Your task to perform on an android device: turn notification dots off Image 0: 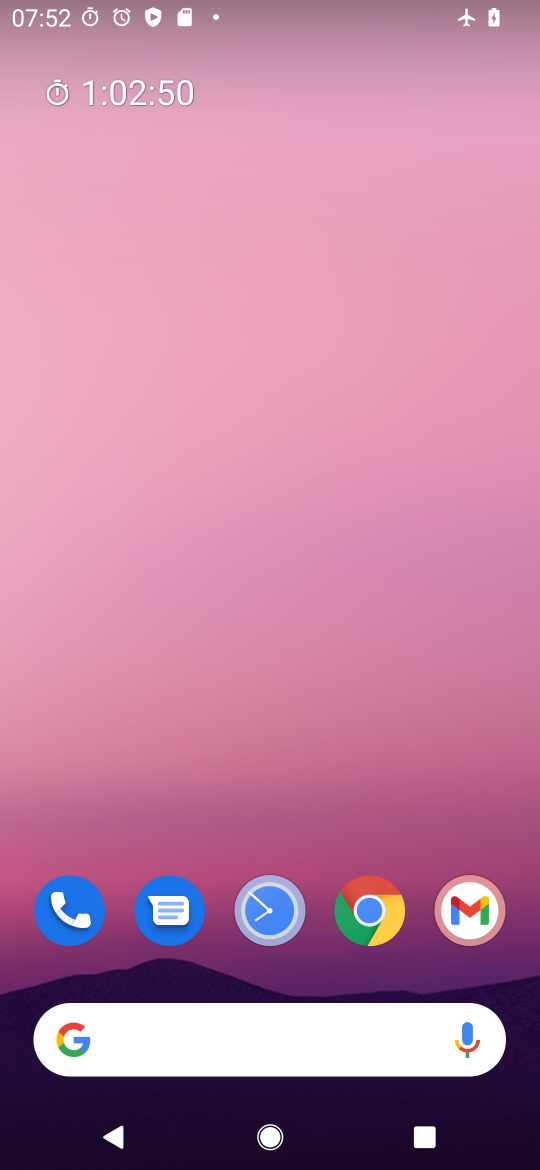
Step 0: drag from (290, 1028) to (313, 125)
Your task to perform on an android device: turn notification dots off Image 1: 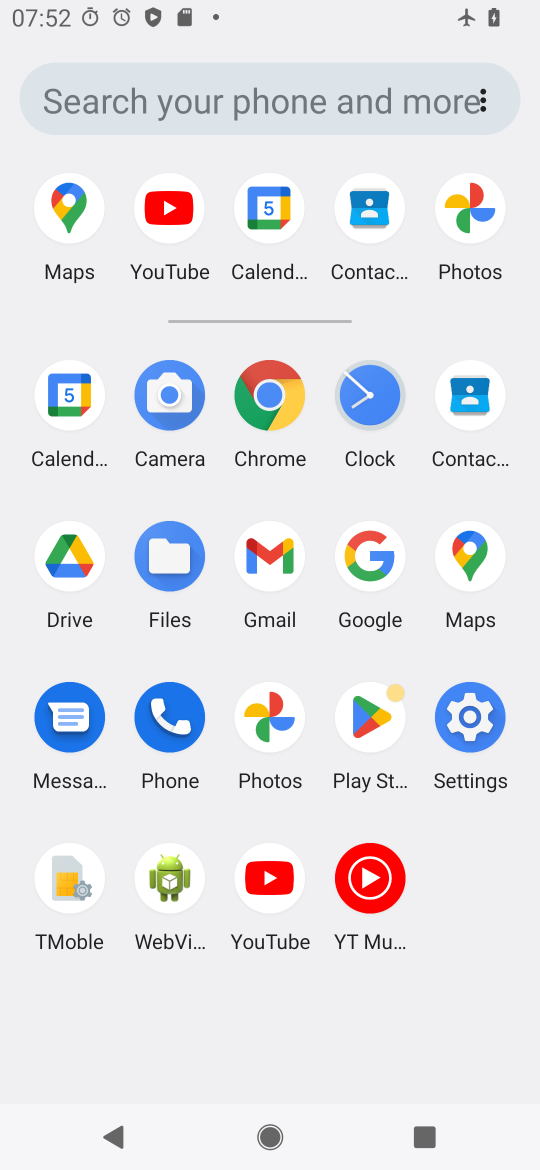
Step 1: click (467, 717)
Your task to perform on an android device: turn notification dots off Image 2: 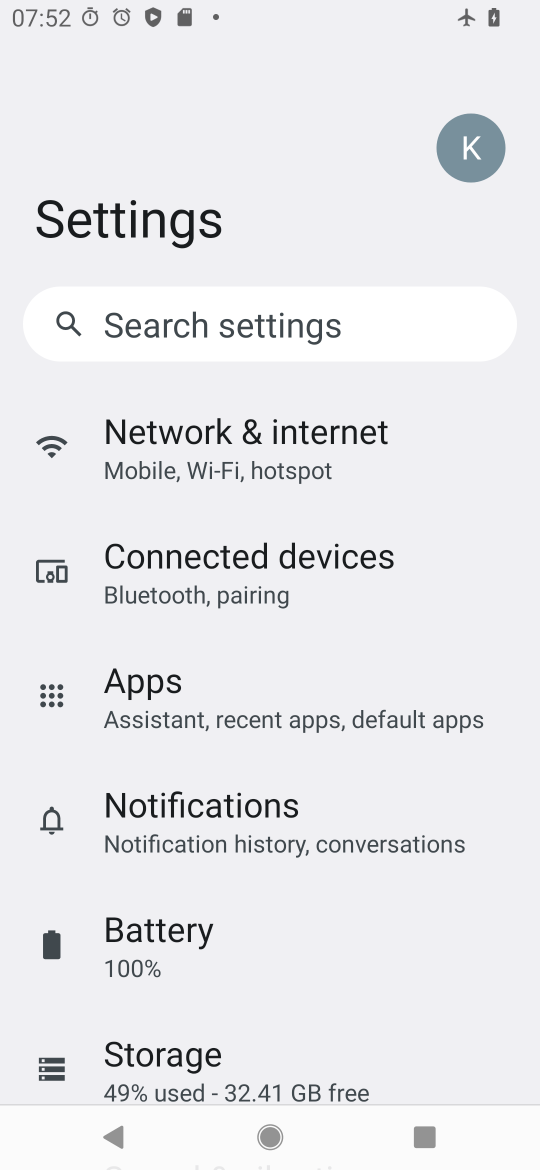
Step 2: click (178, 808)
Your task to perform on an android device: turn notification dots off Image 3: 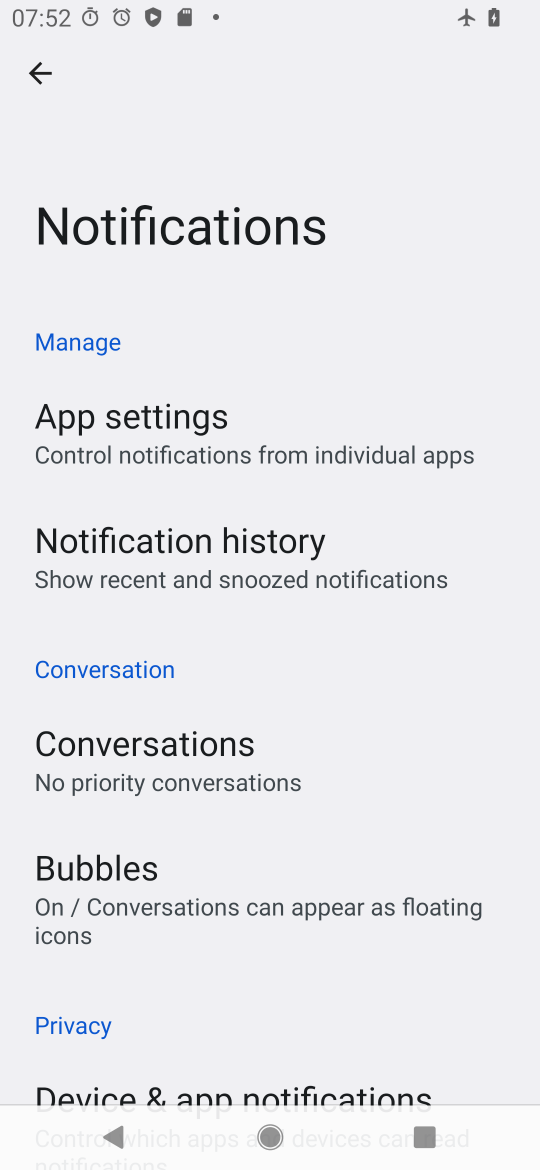
Step 3: drag from (270, 1033) to (336, 272)
Your task to perform on an android device: turn notification dots off Image 4: 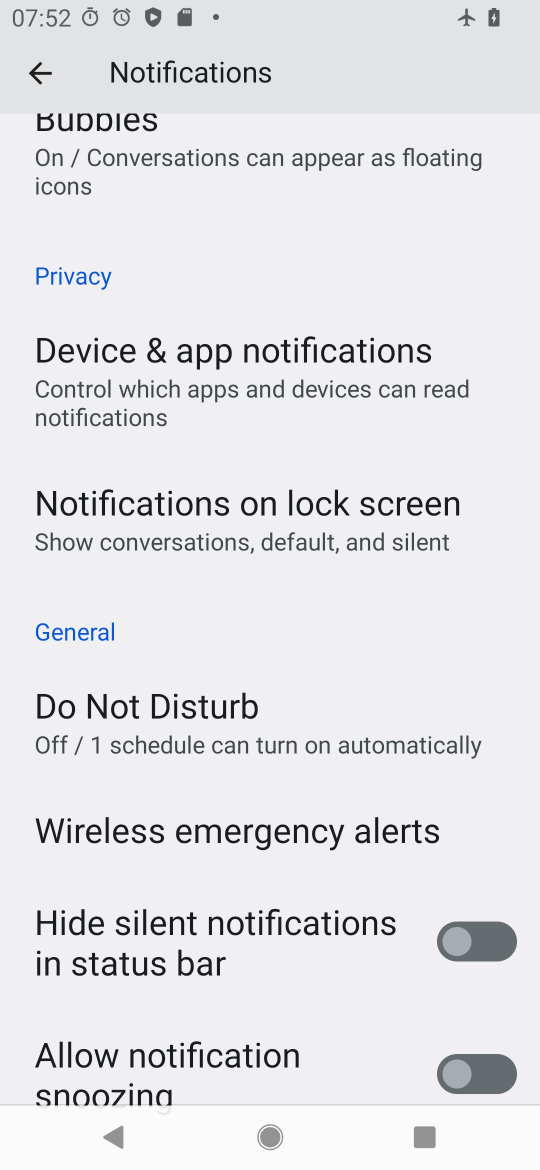
Step 4: drag from (282, 1047) to (325, 481)
Your task to perform on an android device: turn notification dots off Image 5: 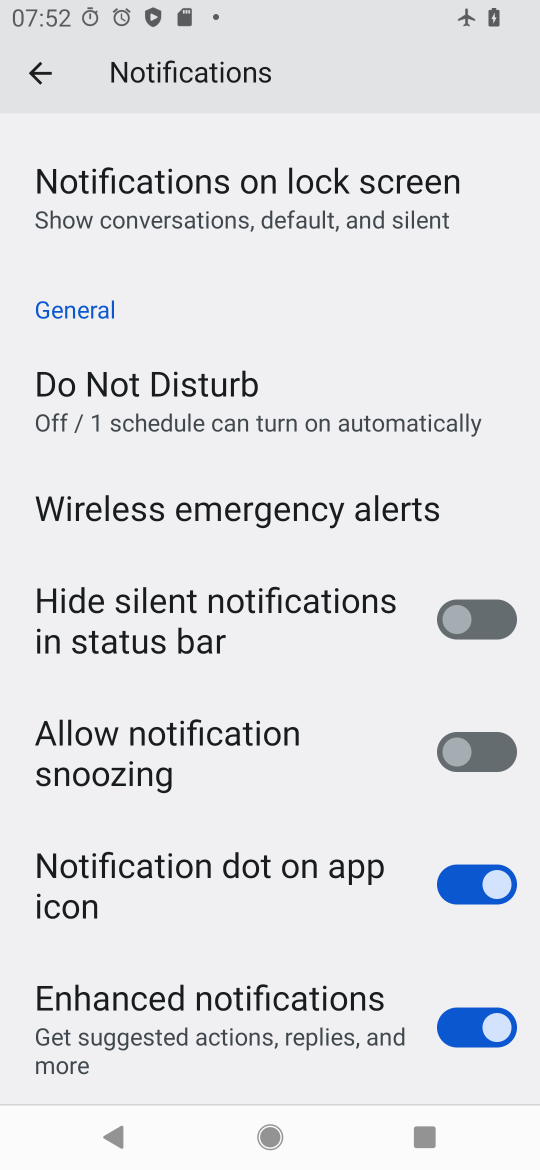
Step 5: click (472, 899)
Your task to perform on an android device: turn notification dots off Image 6: 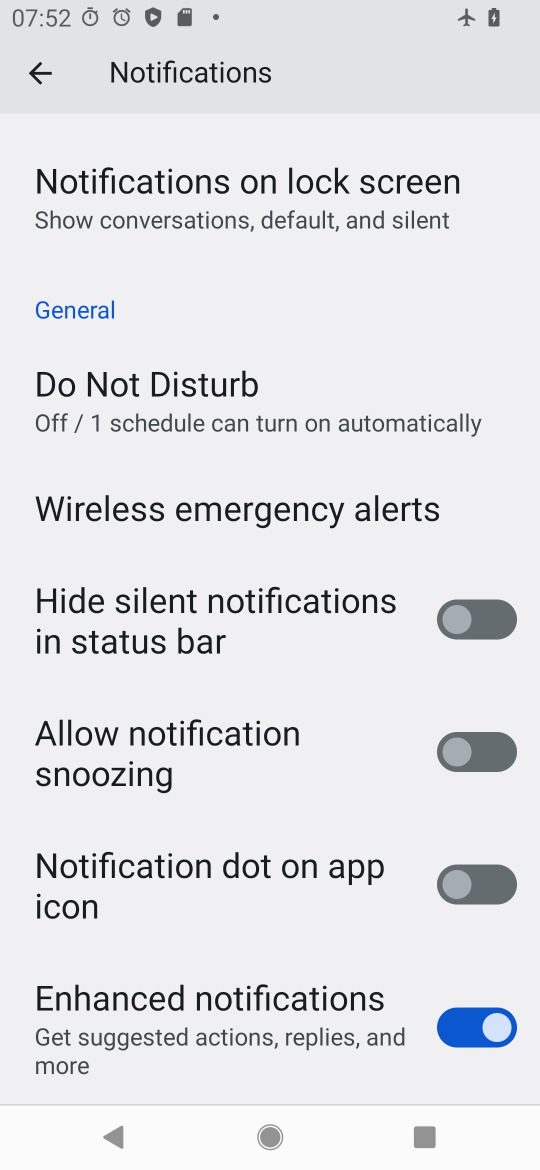
Step 6: task complete